Your task to perform on an android device: turn on improve location accuracy Image 0: 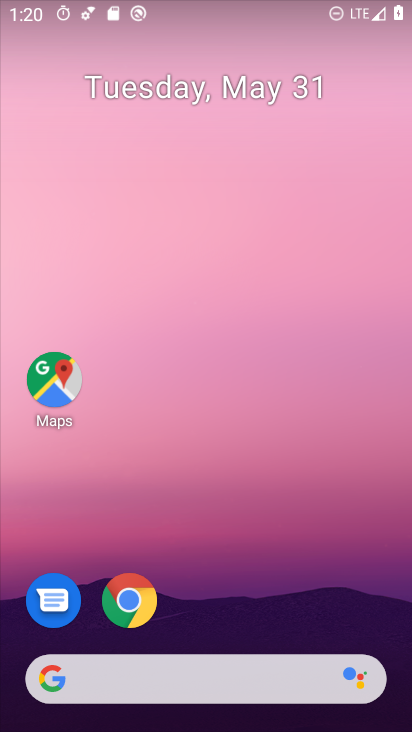
Step 0: drag from (227, 723) to (205, 47)
Your task to perform on an android device: turn on improve location accuracy Image 1: 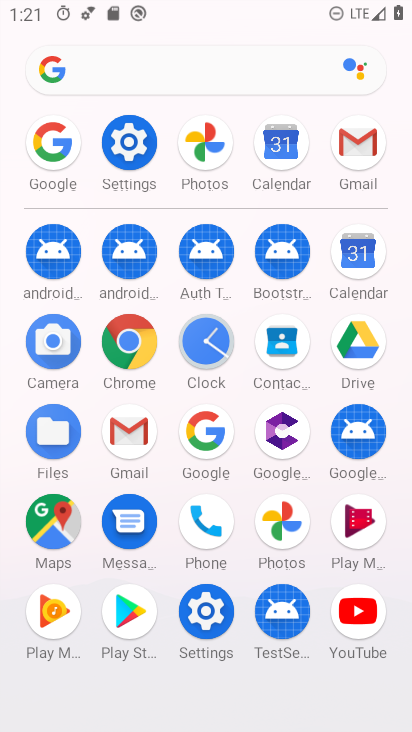
Step 1: click (123, 153)
Your task to perform on an android device: turn on improve location accuracy Image 2: 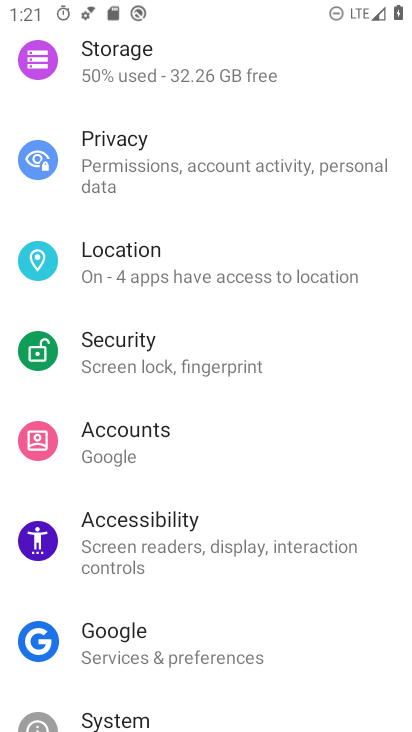
Step 2: click (102, 256)
Your task to perform on an android device: turn on improve location accuracy Image 3: 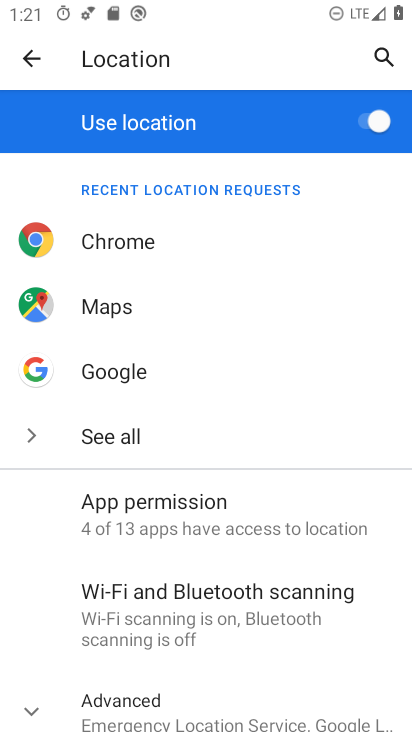
Step 3: click (125, 704)
Your task to perform on an android device: turn on improve location accuracy Image 4: 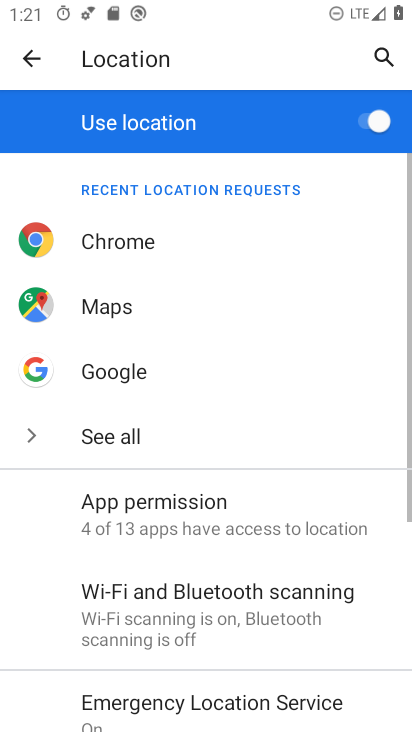
Step 4: click (154, 706)
Your task to perform on an android device: turn on improve location accuracy Image 5: 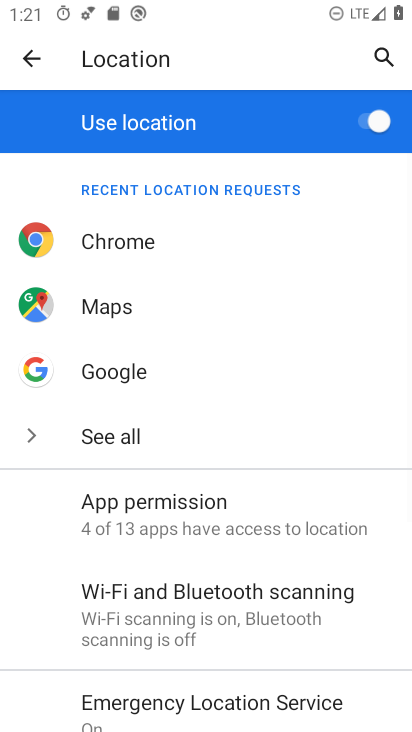
Step 5: drag from (156, 643) to (155, 271)
Your task to perform on an android device: turn on improve location accuracy Image 6: 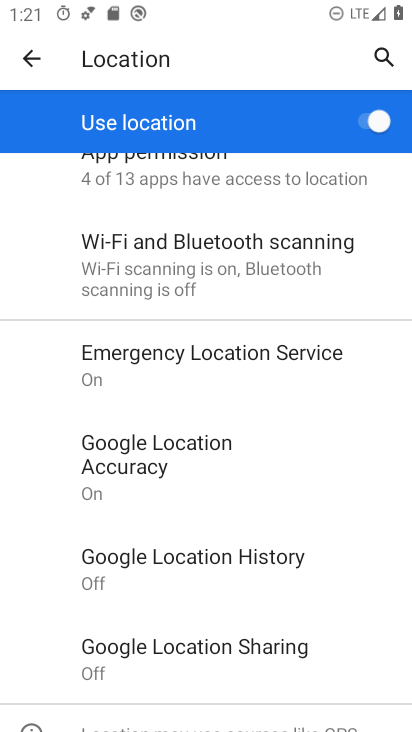
Step 6: click (128, 452)
Your task to perform on an android device: turn on improve location accuracy Image 7: 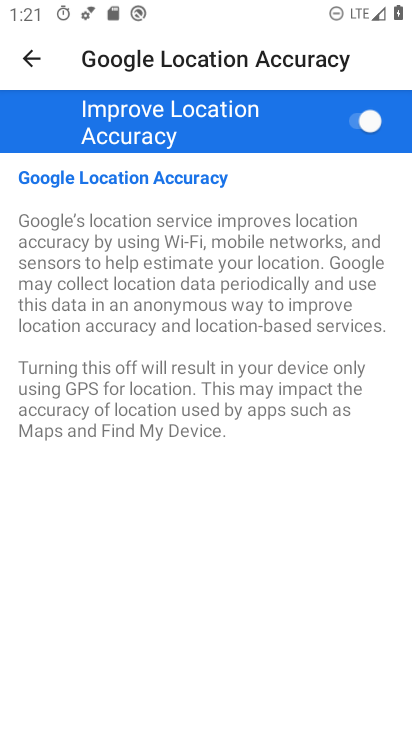
Step 7: task complete